Your task to perform on an android device: visit the assistant section in the google photos Image 0: 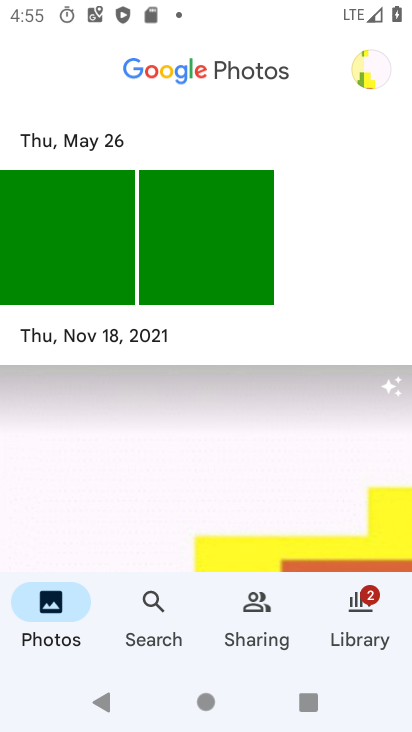
Step 0: press home button
Your task to perform on an android device: visit the assistant section in the google photos Image 1: 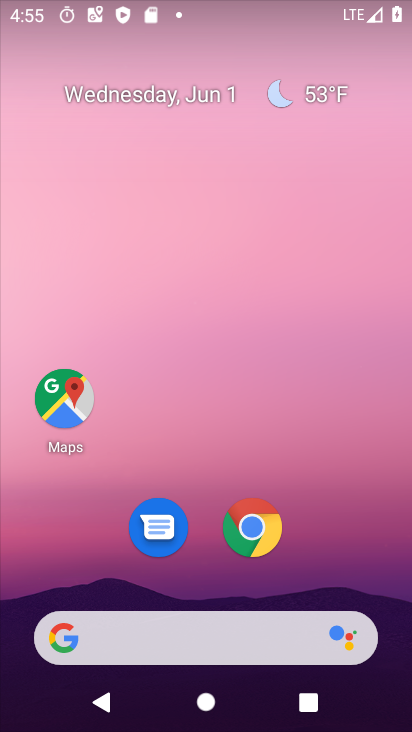
Step 1: drag from (285, 574) to (334, 152)
Your task to perform on an android device: visit the assistant section in the google photos Image 2: 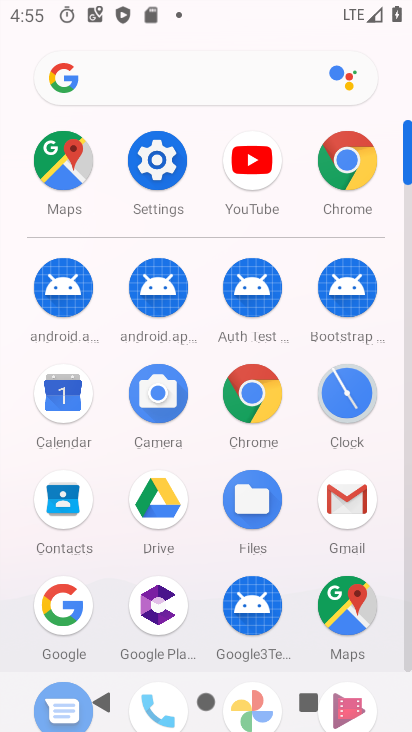
Step 2: drag from (297, 331) to (318, 75)
Your task to perform on an android device: visit the assistant section in the google photos Image 3: 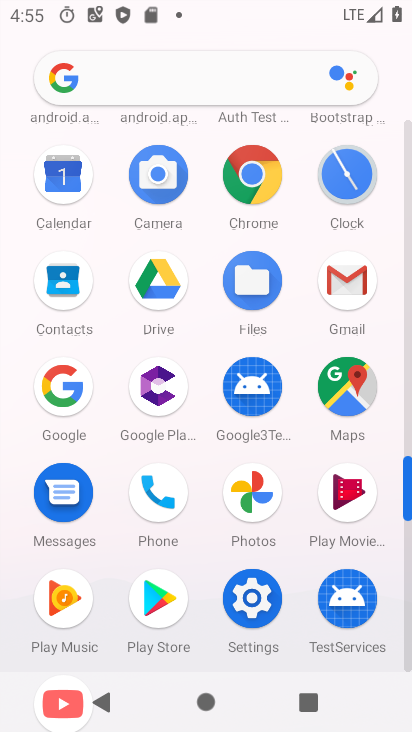
Step 3: click (251, 488)
Your task to perform on an android device: visit the assistant section in the google photos Image 4: 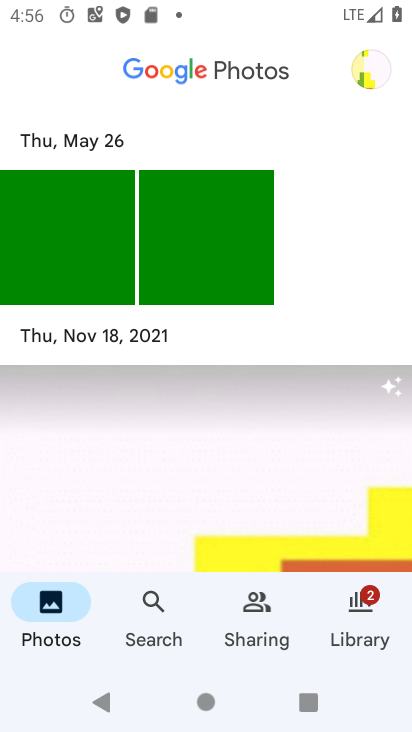
Step 4: task complete